Your task to perform on an android device: When is my next meeting? Image 0: 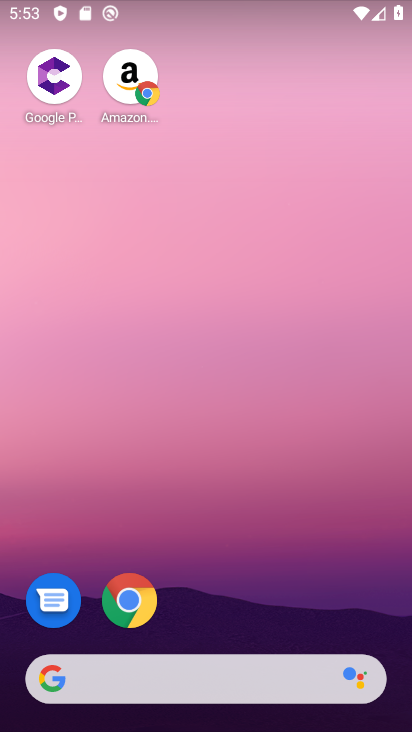
Step 0: drag from (305, 581) to (280, 8)
Your task to perform on an android device: When is my next meeting? Image 1: 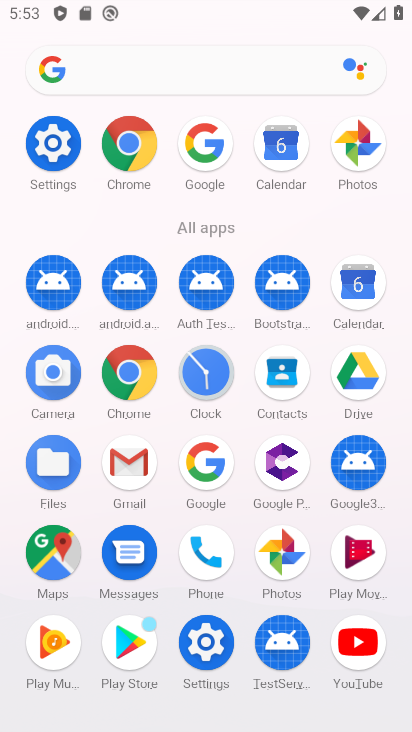
Step 1: click (356, 285)
Your task to perform on an android device: When is my next meeting? Image 2: 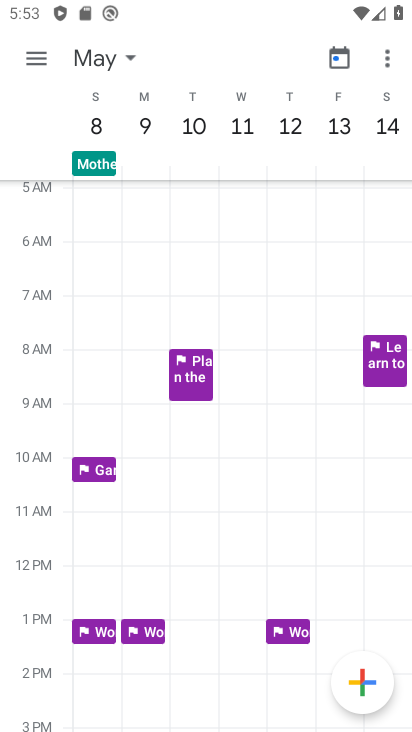
Step 2: click (339, 59)
Your task to perform on an android device: When is my next meeting? Image 3: 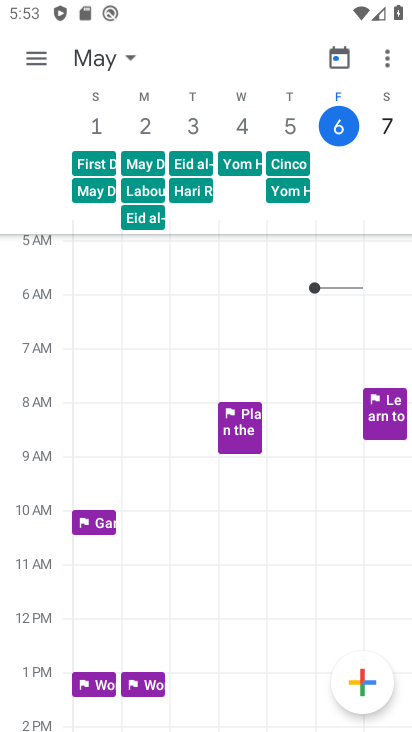
Step 3: click (124, 54)
Your task to perform on an android device: When is my next meeting? Image 4: 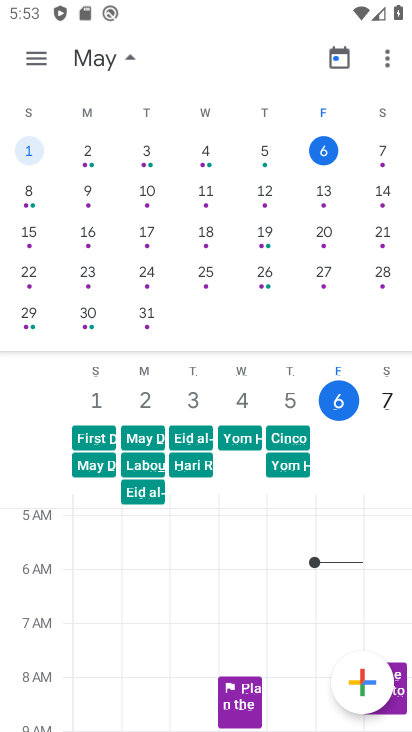
Step 4: click (80, 187)
Your task to perform on an android device: When is my next meeting? Image 5: 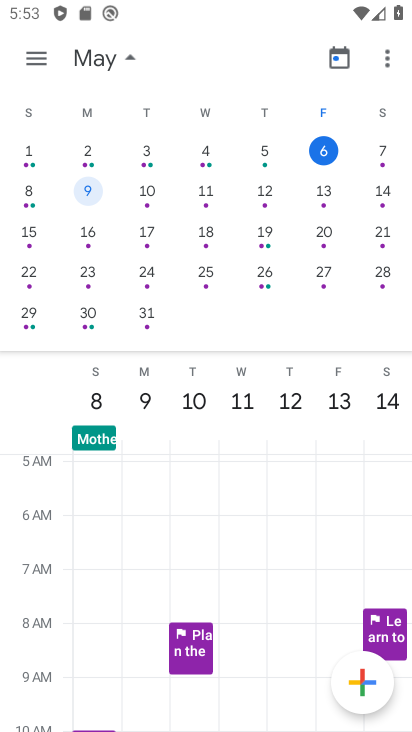
Step 5: click (34, 51)
Your task to perform on an android device: When is my next meeting? Image 6: 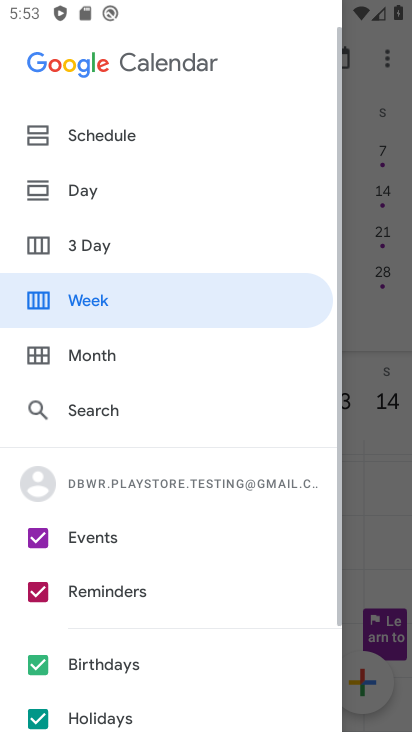
Step 6: click (101, 290)
Your task to perform on an android device: When is my next meeting? Image 7: 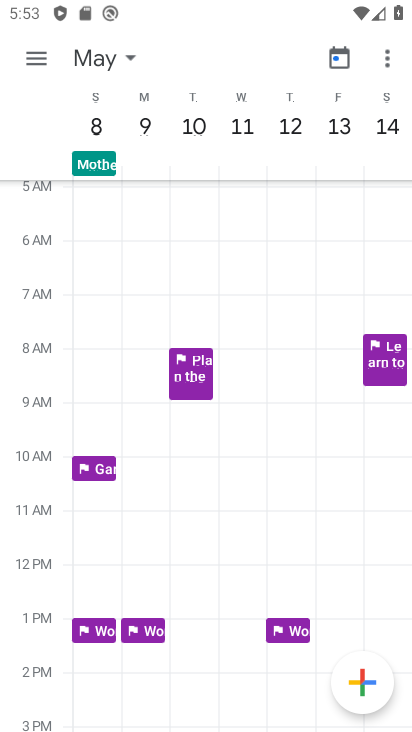
Step 7: task complete